Your task to perform on an android device: Search for "apple airpods" on walmart, select the first entry, add it to the cart, then select checkout. Image 0: 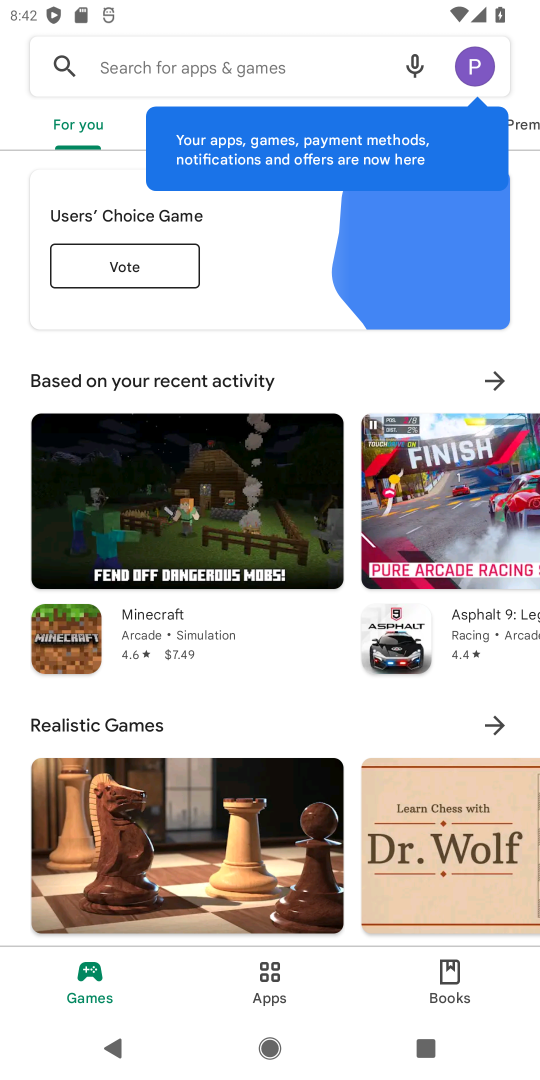
Step 0: press home button
Your task to perform on an android device: Search for "apple airpods" on walmart, select the first entry, add it to the cart, then select checkout. Image 1: 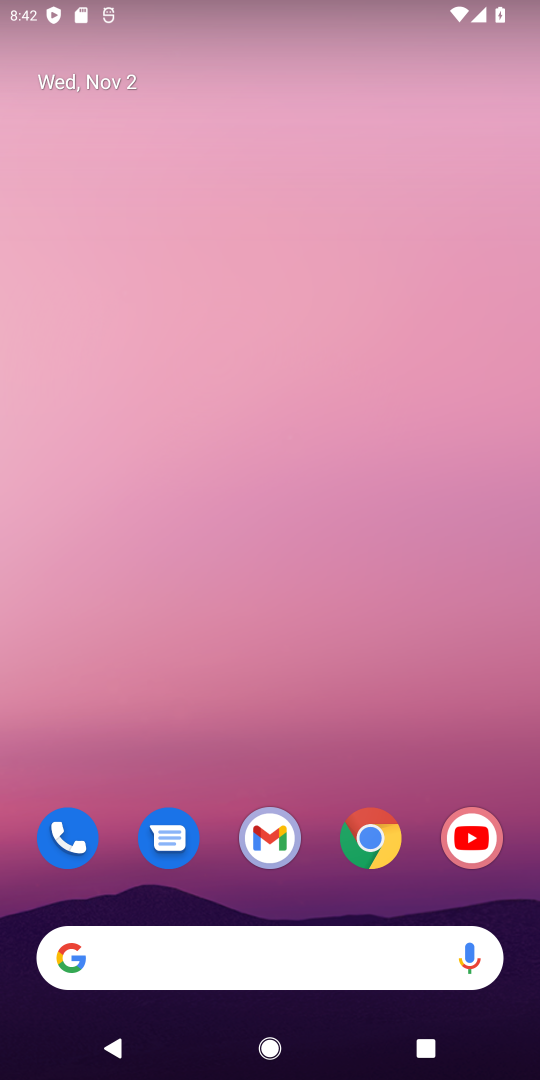
Step 1: click (375, 847)
Your task to perform on an android device: Search for "apple airpods" on walmart, select the first entry, add it to the cart, then select checkout. Image 2: 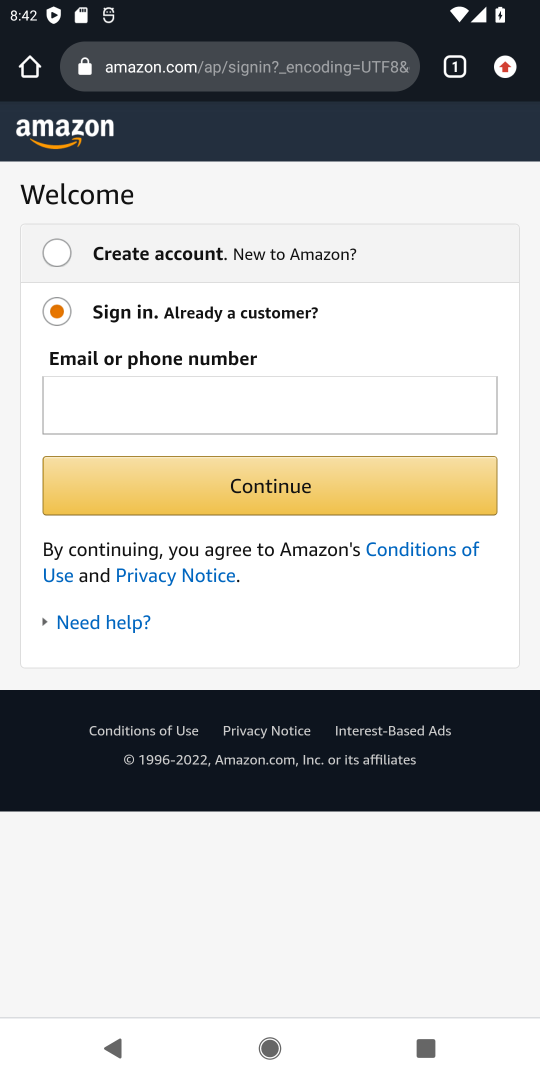
Step 2: click (261, 69)
Your task to perform on an android device: Search for "apple airpods" on walmart, select the first entry, add it to the cart, then select checkout. Image 3: 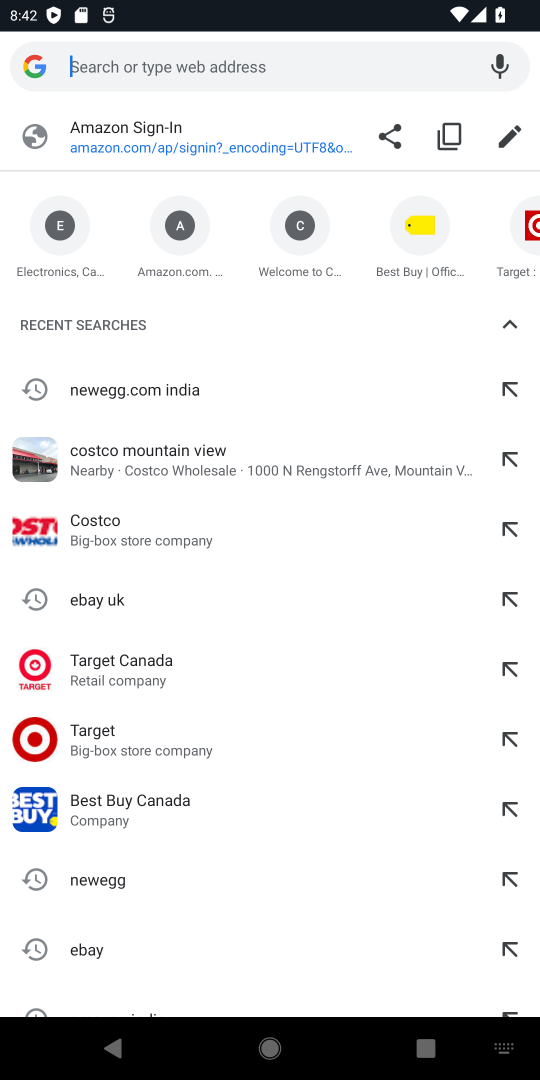
Step 3: type "walmart"
Your task to perform on an android device: Search for "apple airpods" on walmart, select the first entry, add it to the cart, then select checkout. Image 4: 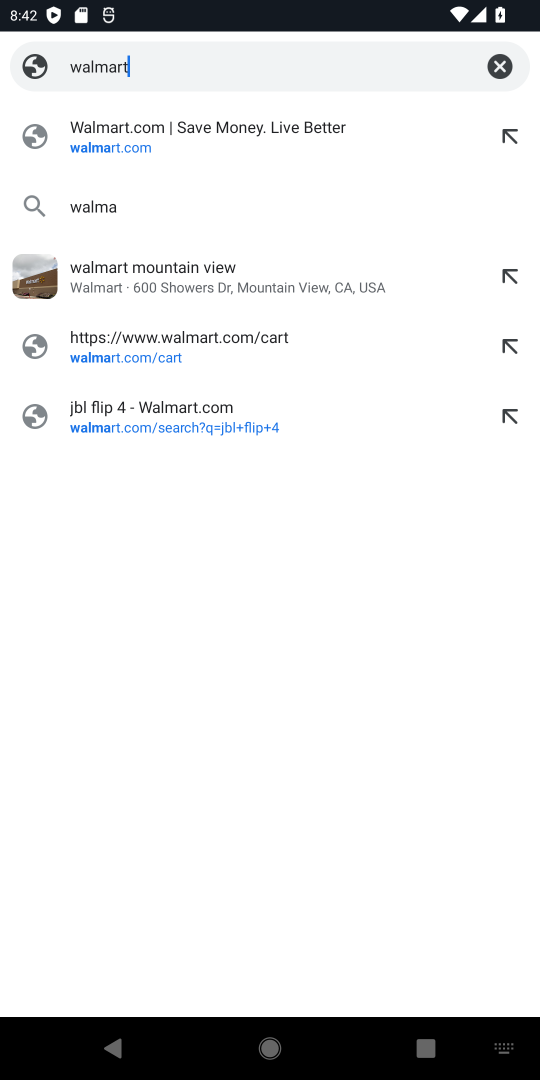
Step 4: type ""
Your task to perform on an android device: Search for "apple airpods" on walmart, select the first entry, add it to the cart, then select checkout. Image 5: 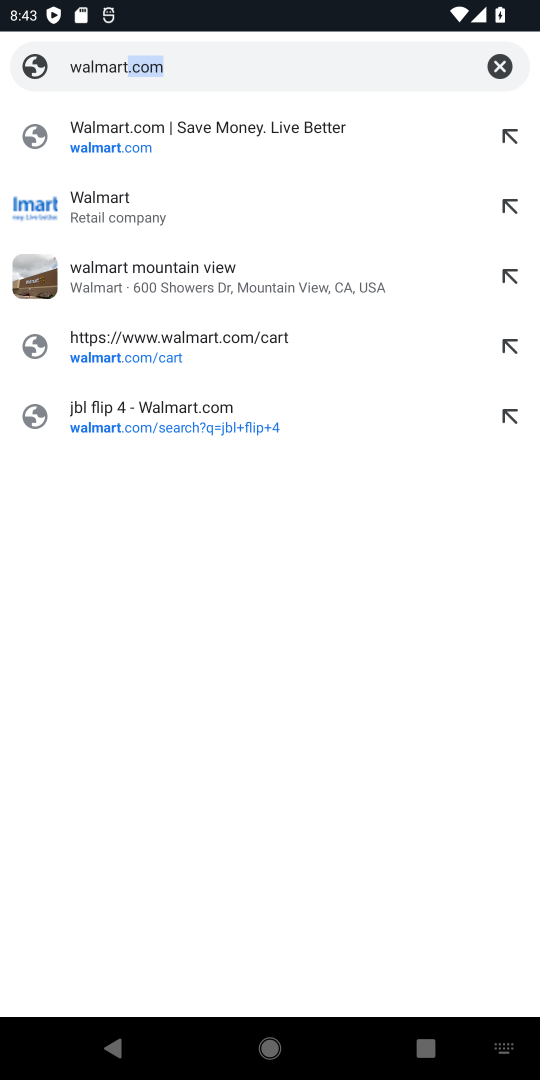
Step 5: press enter
Your task to perform on an android device: Search for "apple airpods" on walmart, select the first entry, add it to the cart, then select checkout. Image 6: 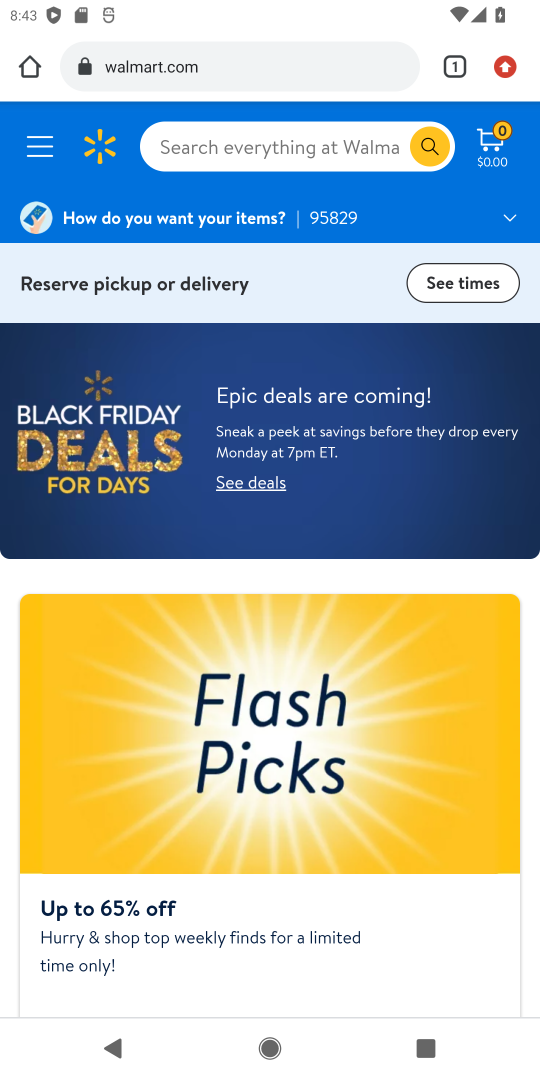
Step 6: click (325, 136)
Your task to perform on an android device: Search for "apple airpods" on walmart, select the first entry, add it to the cart, then select checkout. Image 7: 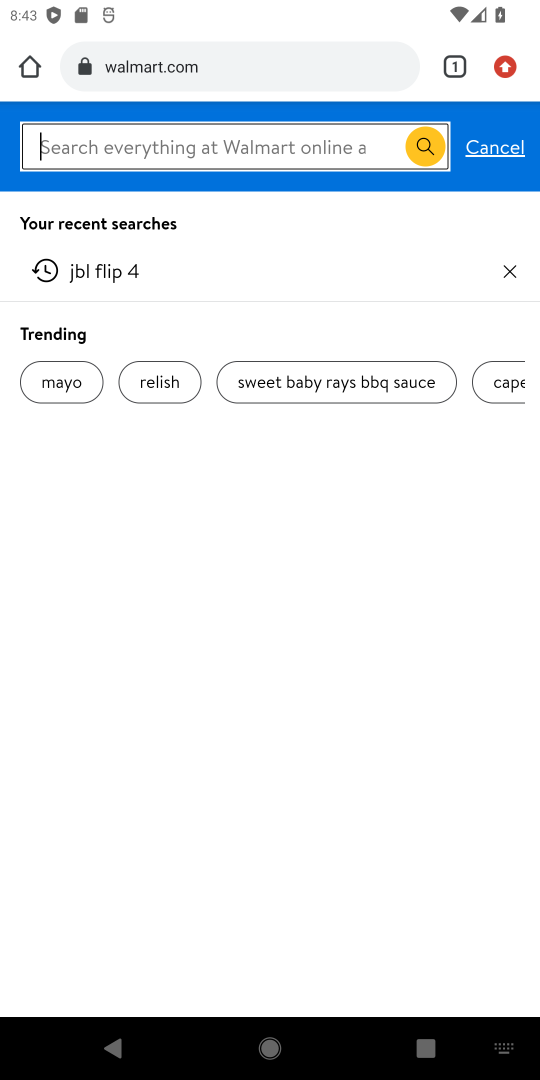
Step 7: type "apple airpods"
Your task to perform on an android device: Search for "apple airpods" on walmart, select the first entry, add it to the cart, then select checkout. Image 8: 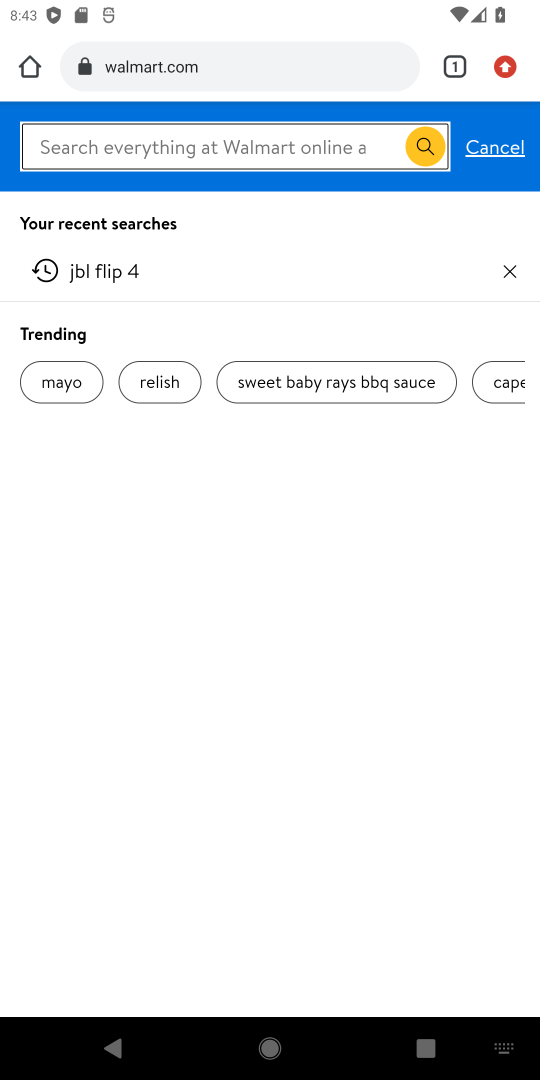
Step 8: type ""
Your task to perform on an android device: Search for "apple airpods" on walmart, select the first entry, add it to the cart, then select checkout. Image 9: 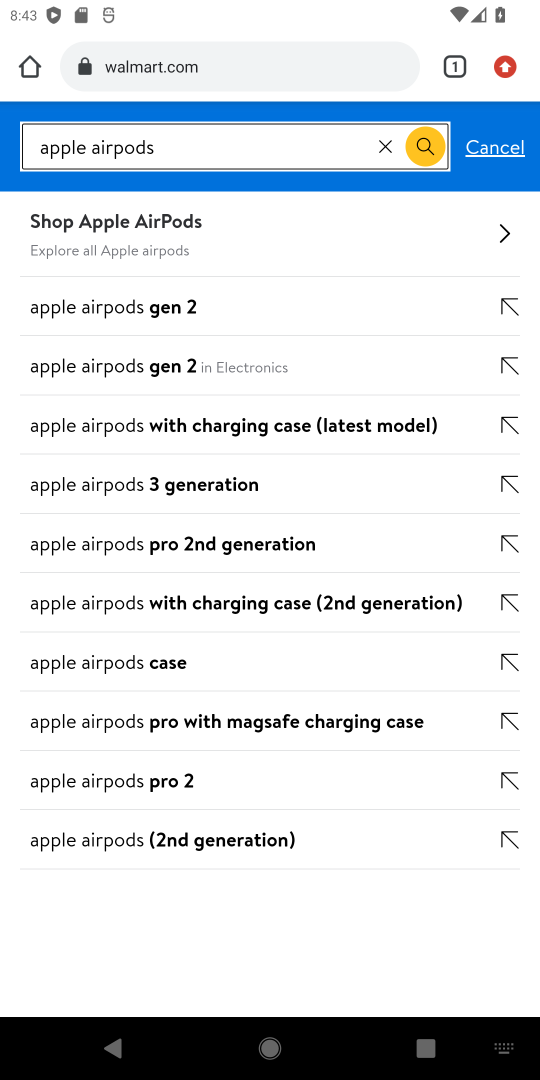
Step 9: press enter
Your task to perform on an android device: Search for "apple airpods" on walmart, select the first entry, add it to the cart, then select checkout. Image 10: 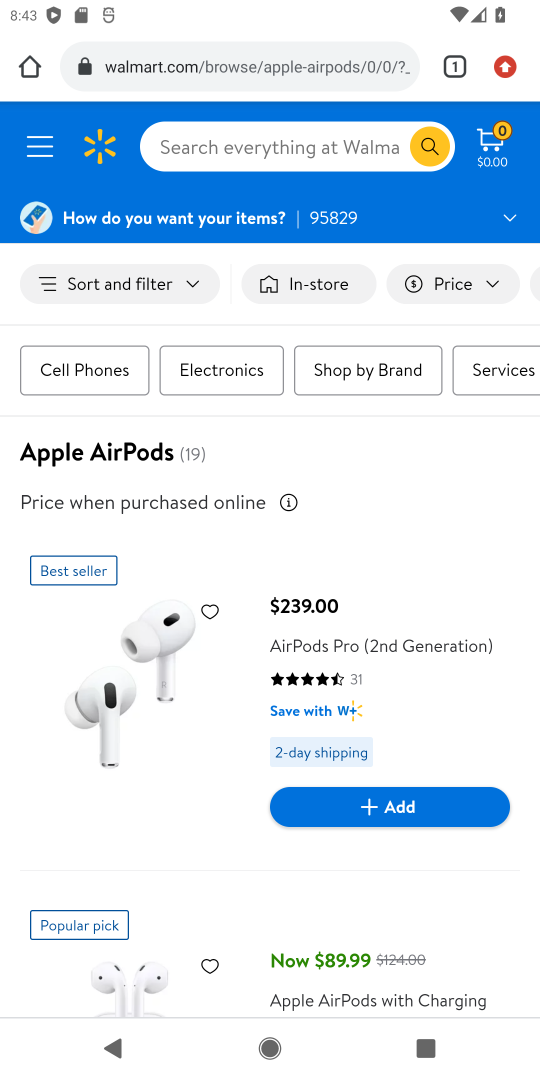
Step 10: click (321, 652)
Your task to perform on an android device: Search for "apple airpods" on walmart, select the first entry, add it to the cart, then select checkout. Image 11: 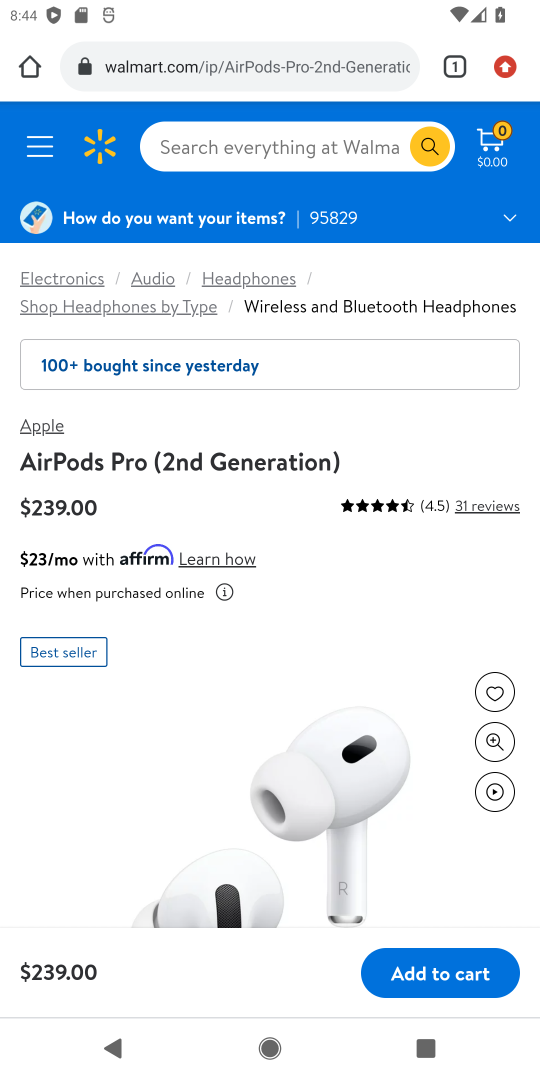
Step 11: drag from (389, 818) to (392, 587)
Your task to perform on an android device: Search for "apple airpods" on walmart, select the first entry, add it to the cart, then select checkout. Image 12: 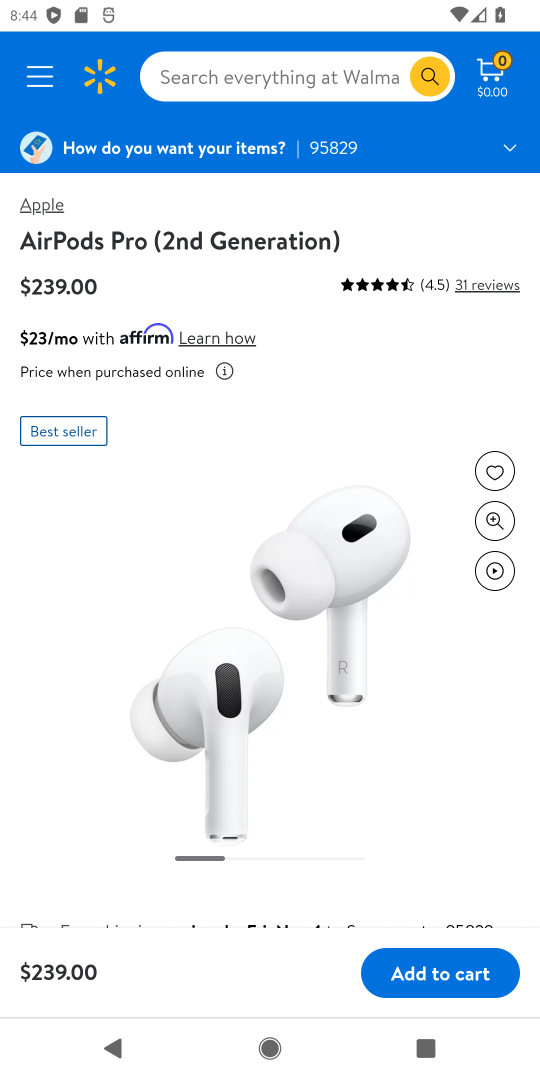
Step 12: click (474, 971)
Your task to perform on an android device: Search for "apple airpods" on walmart, select the first entry, add it to the cart, then select checkout. Image 13: 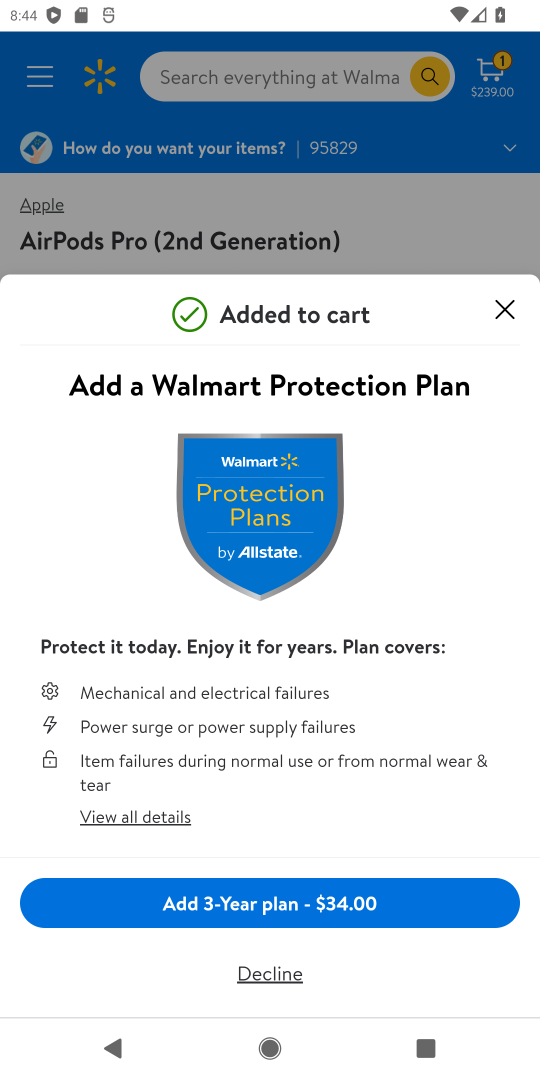
Step 13: click (495, 303)
Your task to perform on an android device: Search for "apple airpods" on walmart, select the first entry, add it to the cart, then select checkout. Image 14: 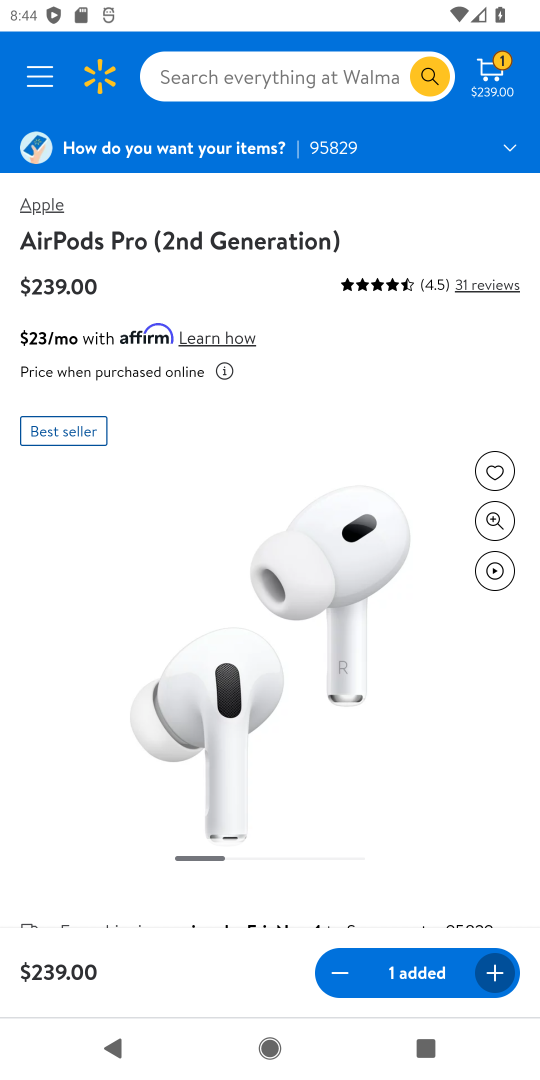
Step 14: drag from (349, 793) to (383, 435)
Your task to perform on an android device: Search for "apple airpods" on walmart, select the first entry, add it to the cart, then select checkout. Image 15: 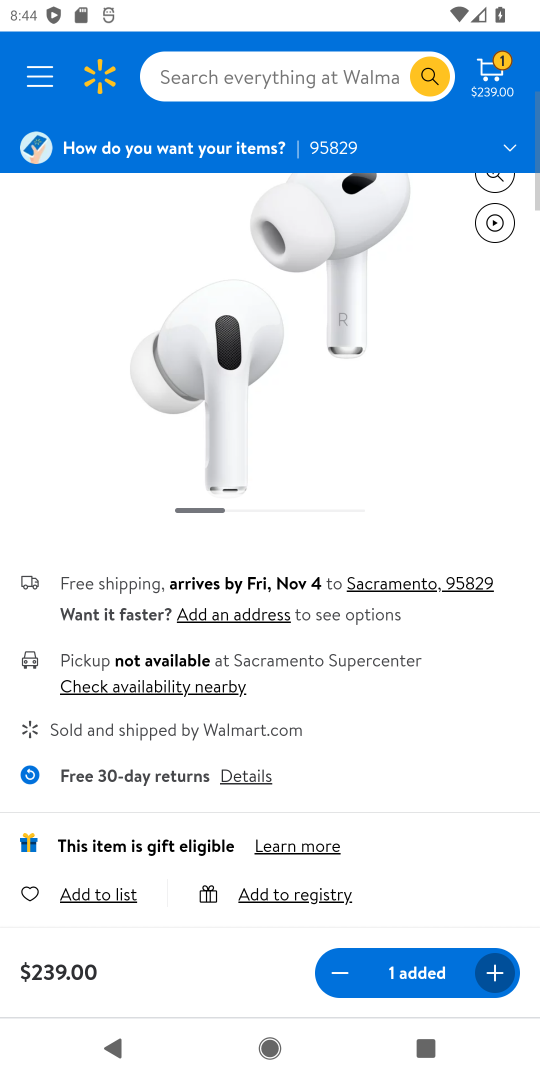
Step 15: click (500, 79)
Your task to perform on an android device: Search for "apple airpods" on walmart, select the first entry, add it to the cart, then select checkout. Image 16: 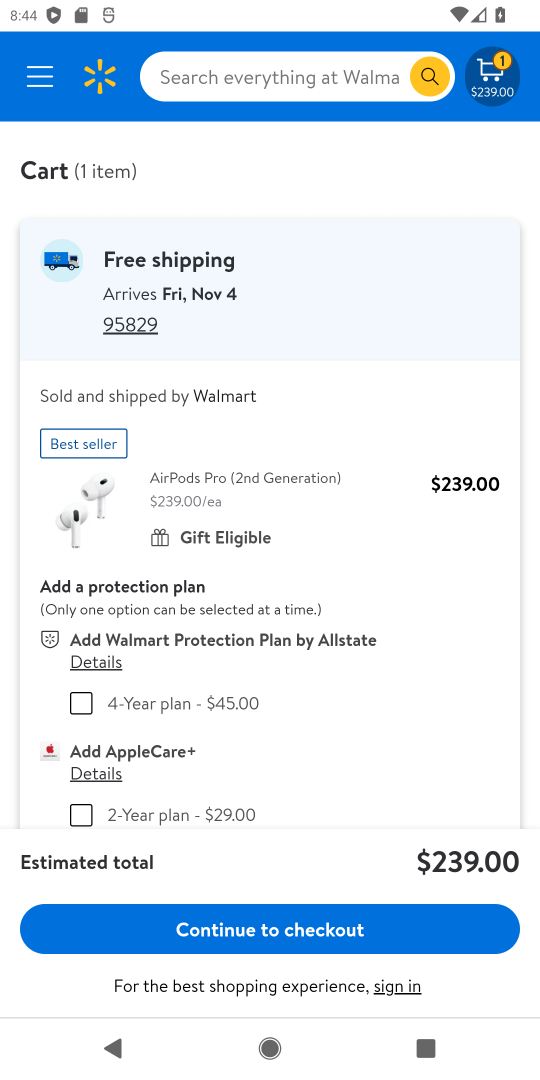
Step 16: click (295, 932)
Your task to perform on an android device: Search for "apple airpods" on walmart, select the first entry, add it to the cart, then select checkout. Image 17: 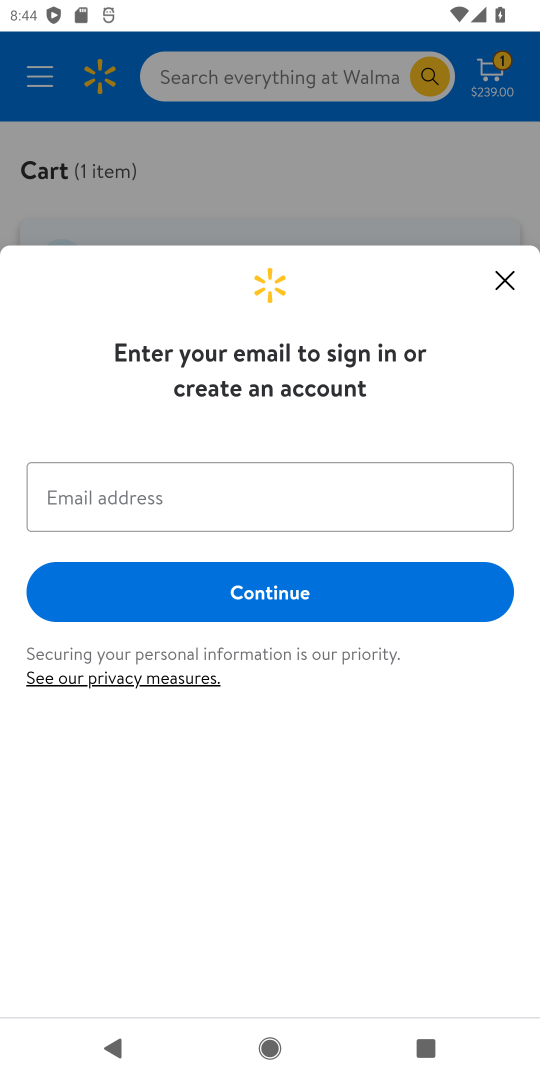
Step 17: click (508, 289)
Your task to perform on an android device: Search for "apple airpods" on walmart, select the first entry, add it to the cart, then select checkout. Image 18: 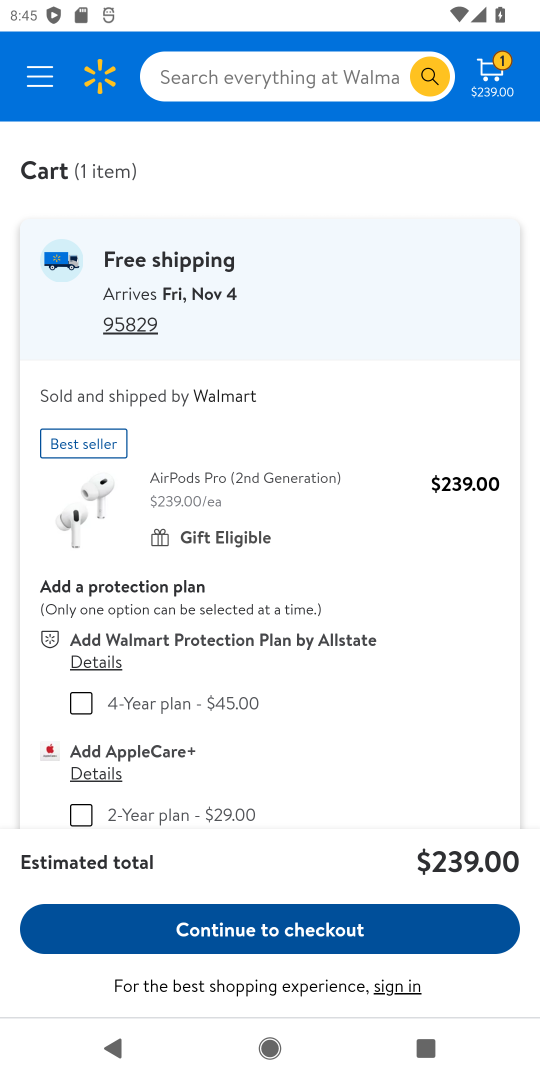
Step 18: click (349, 942)
Your task to perform on an android device: Search for "apple airpods" on walmart, select the first entry, add it to the cart, then select checkout. Image 19: 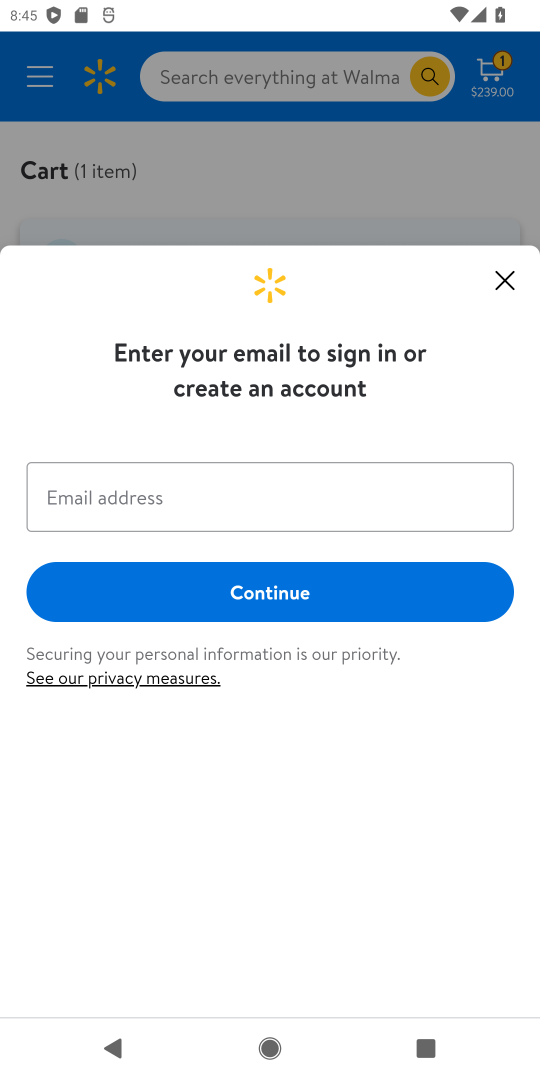
Step 19: task complete